Your task to perform on an android device: open a new tab in the chrome app Image 0: 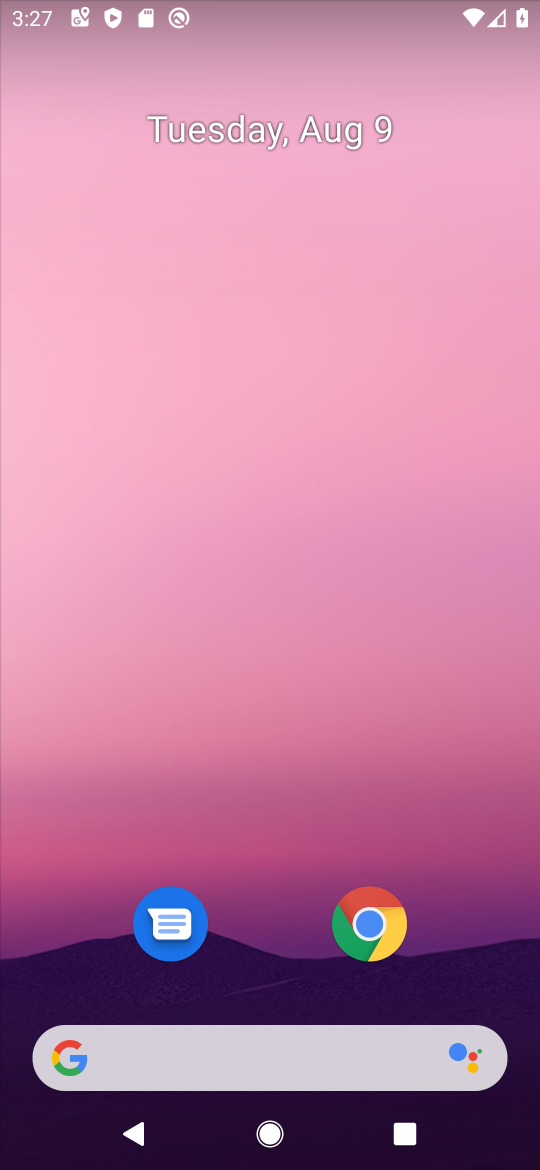
Step 0: click (373, 923)
Your task to perform on an android device: open a new tab in the chrome app Image 1: 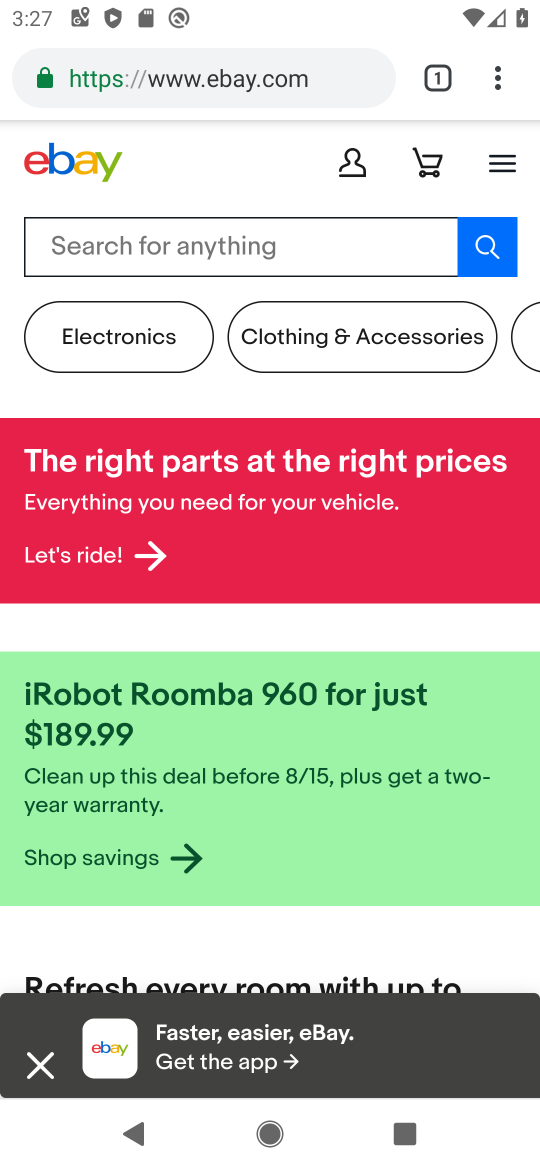
Step 1: click (496, 79)
Your task to perform on an android device: open a new tab in the chrome app Image 2: 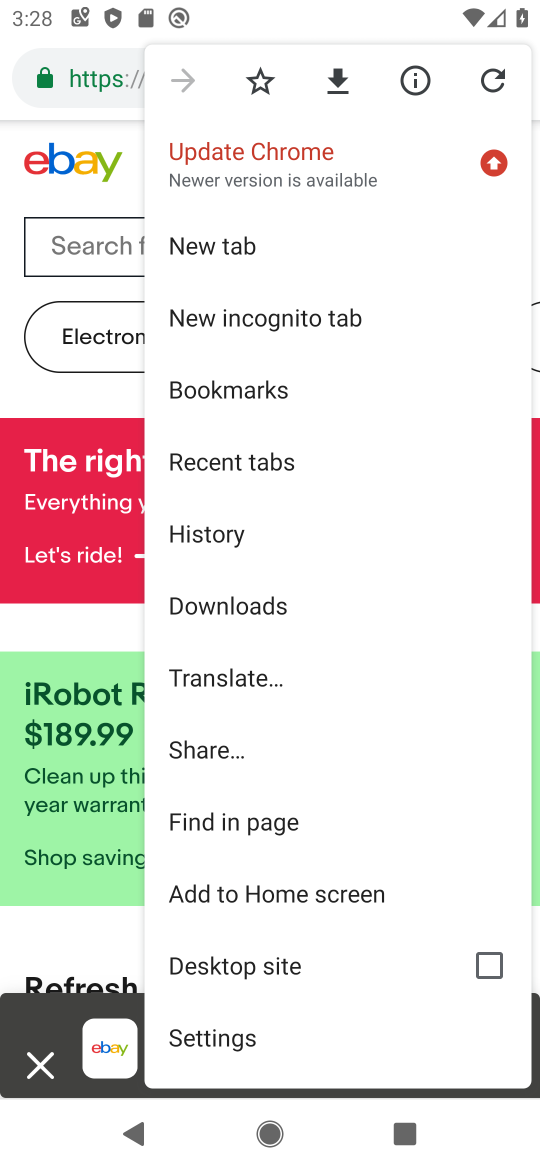
Step 2: click (249, 245)
Your task to perform on an android device: open a new tab in the chrome app Image 3: 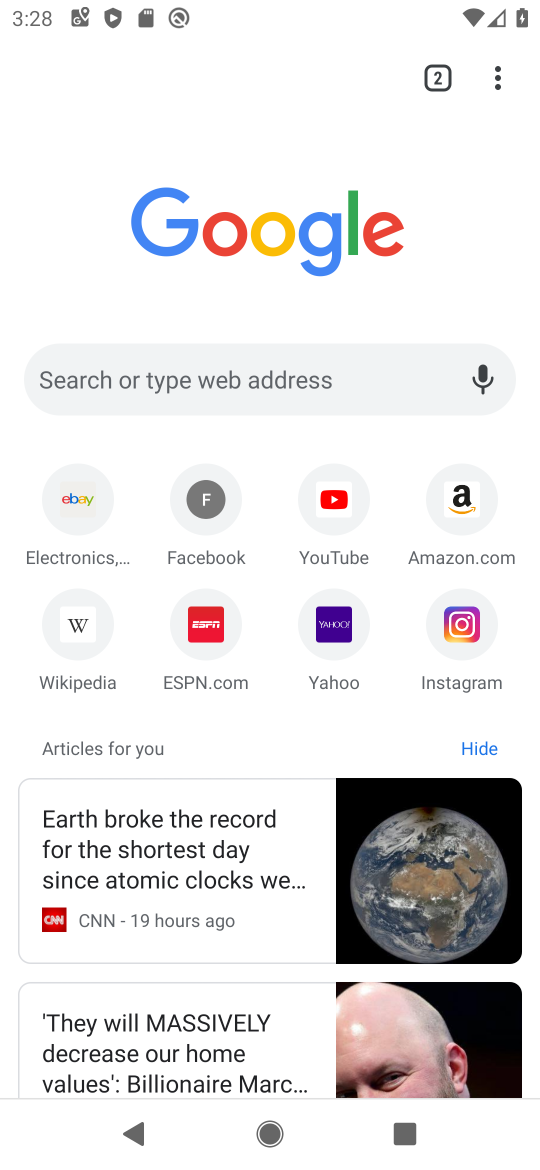
Step 3: task complete